Your task to perform on an android device: Do I have any events this weekend? Image 0: 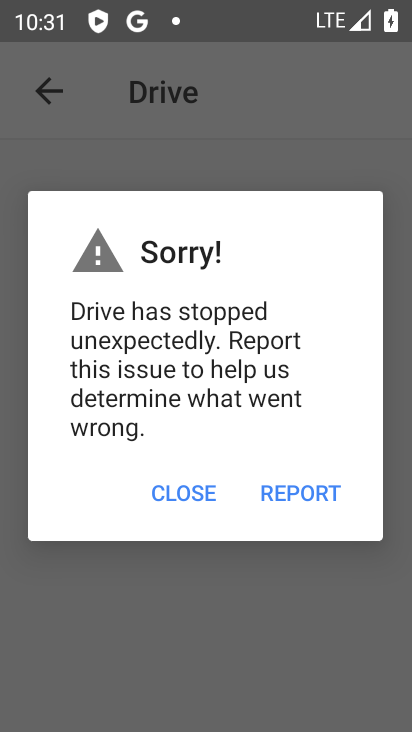
Step 0: press home button
Your task to perform on an android device: Do I have any events this weekend? Image 1: 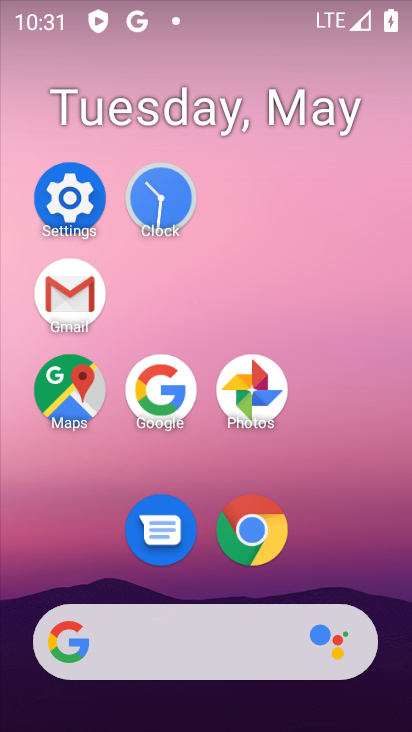
Step 1: drag from (345, 425) to (361, 119)
Your task to perform on an android device: Do I have any events this weekend? Image 2: 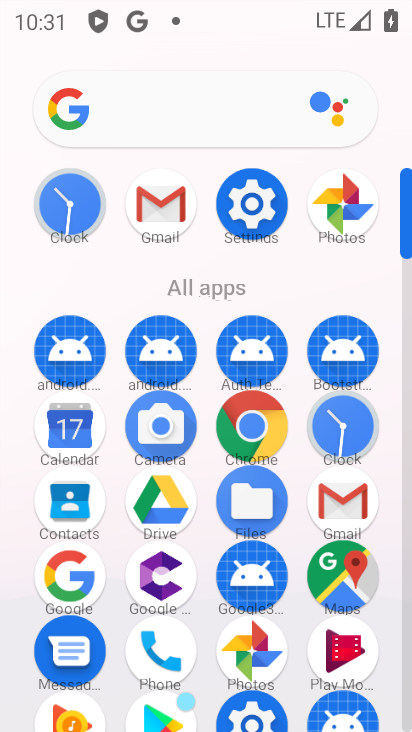
Step 2: drag from (80, 441) to (212, 222)
Your task to perform on an android device: Do I have any events this weekend? Image 3: 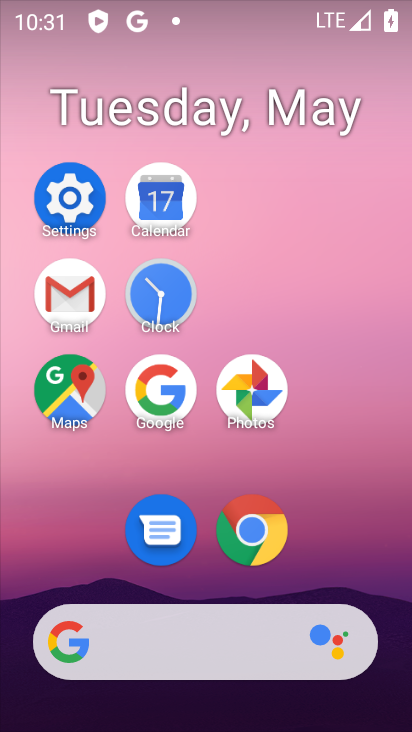
Step 3: click (151, 208)
Your task to perform on an android device: Do I have any events this weekend? Image 4: 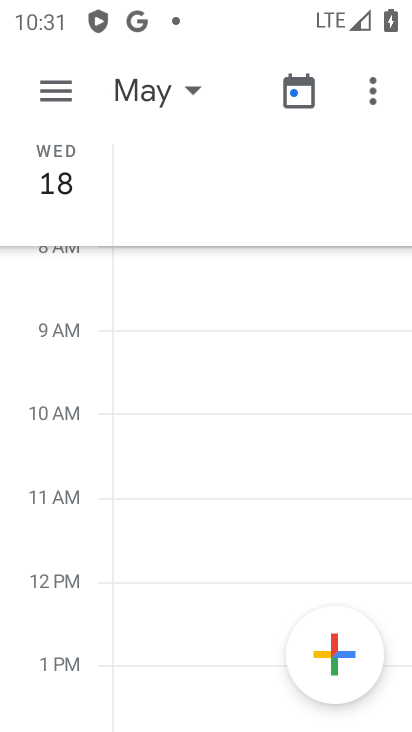
Step 4: click (65, 74)
Your task to perform on an android device: Do I have any events this weekend? Image 5: 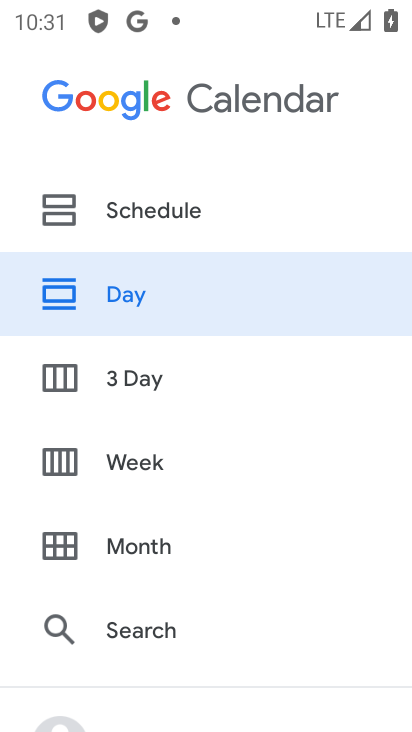
Step 5: click (120, 480)
Your task to perform on an android device: Do I have any events this weekend? Image 6: 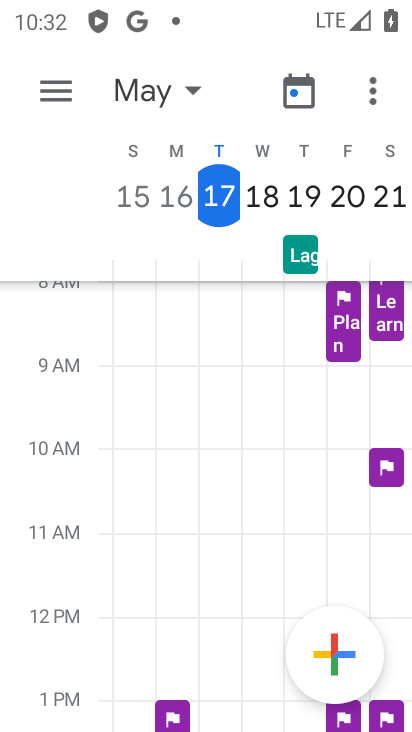
Step 6: click (388, 188)
Your task to perform on an android device: Do I have any events this weekend? Image 7: 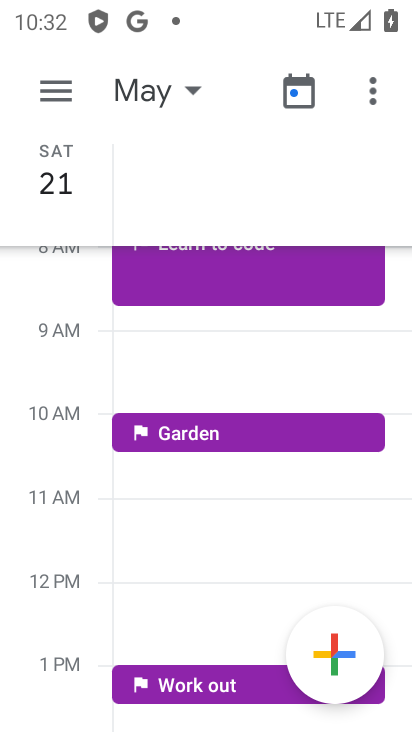
Step 7: task complete